Your task to perform on an android device: Check the weather Image 0: 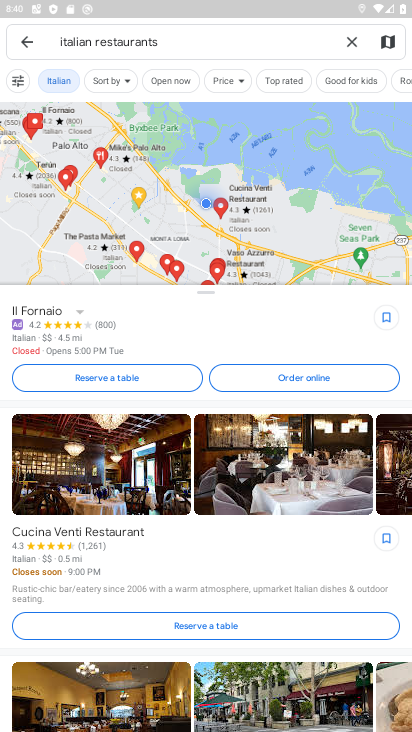
Step 0: press home button
Your task to perform on an android device: Check the weather Image 1: 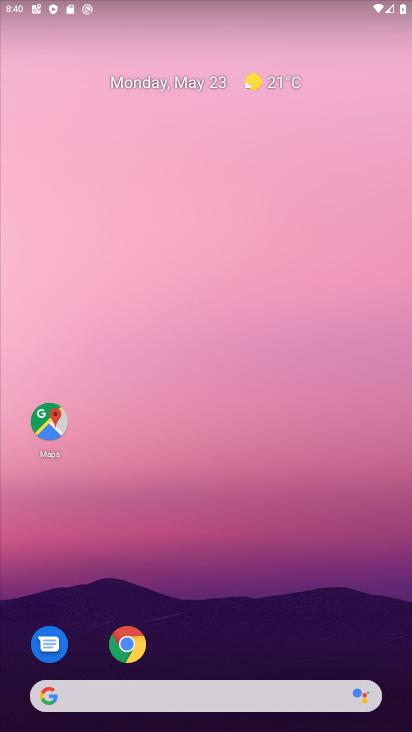
Step 1: click (209, 696)
Your task to perform on an android device: Check the weather Image 2: 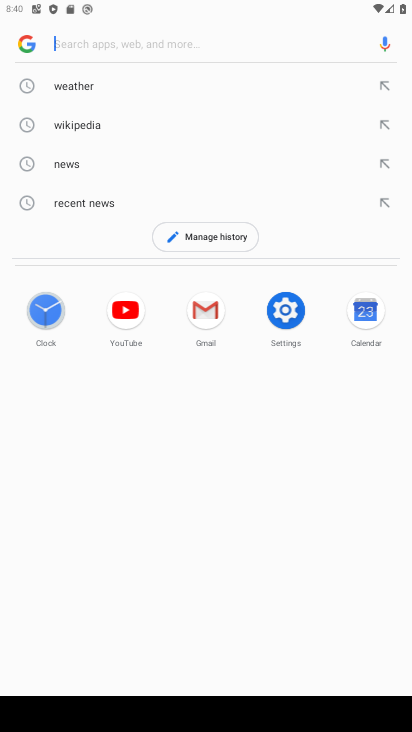
Step 2: click (132, 83)
Your task to perform on an android device: Check the weather Image 3: 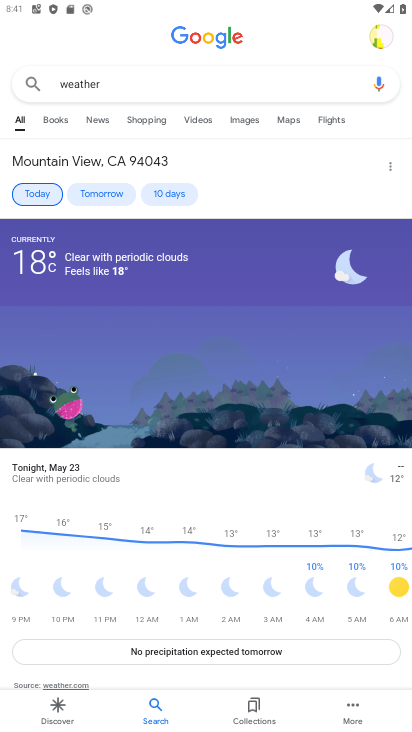
Step 3: task complete